Your task to perform on an android device: Search for vegetarian restaurants on Maps Image 0: 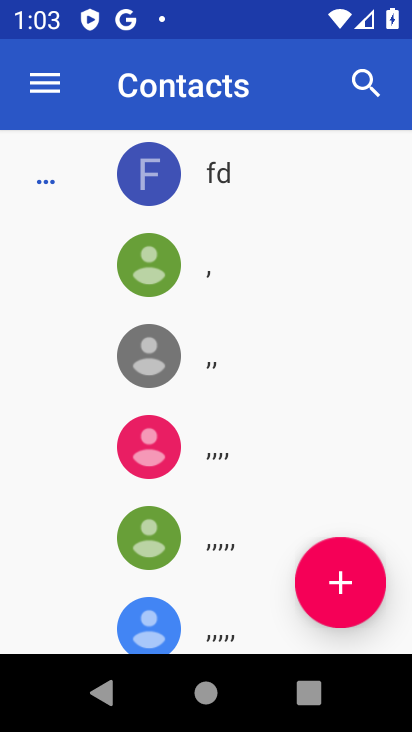
Step 0: press home button
Your task to perform on an android device: Search for vegetarian restaurants on Maps Image 1: 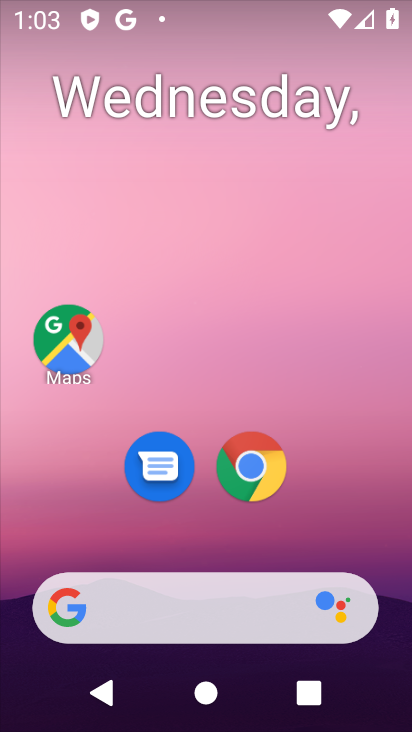
Step 1: click (81, 340)
Your task to perform on an android device: Search for vegetarian restaurants on Maps Image 2: 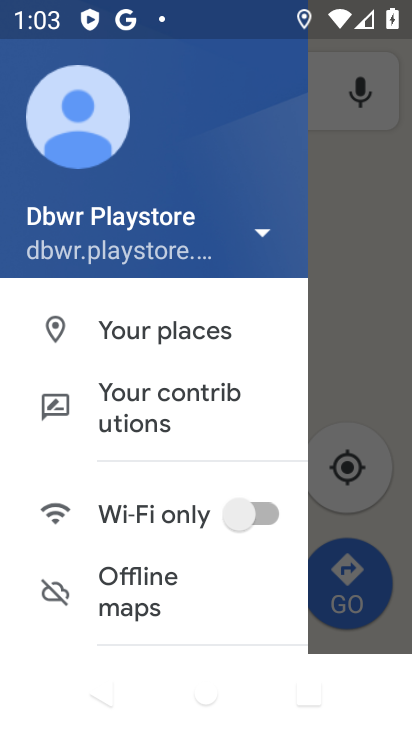
Step 2: click (317, 302)
Your task to perform on an android device: Search for vegetarian restaurants on Maps Image 3: 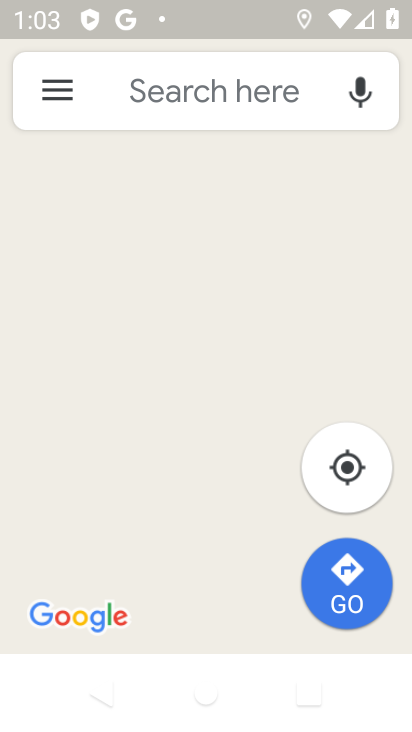
Step 3: click (180, 101)
Your task to perform on an android device: Search for vegetarian restaurants on Maps Image 4: 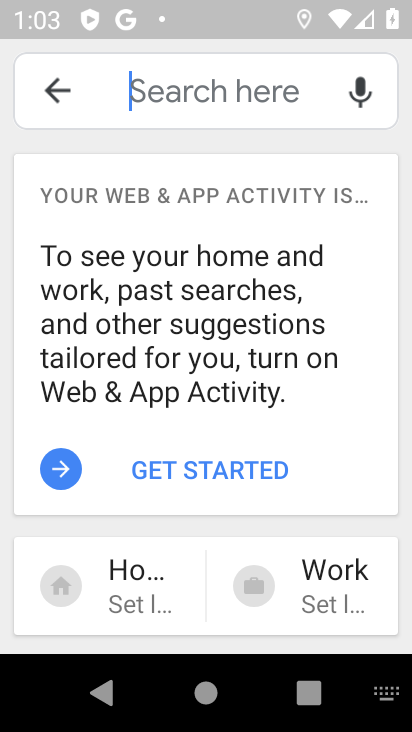
Step 4: click (182, 463)
Your task to perform on an android device: Search for vegetarian restaurants on Maps Image 5: 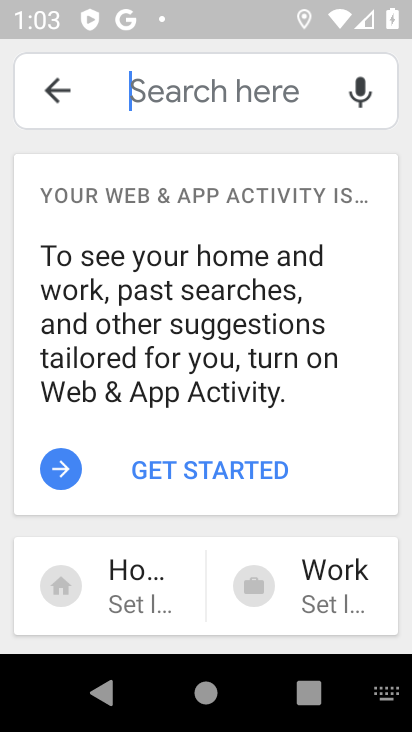
Step 5: click (185, 463)
Your task to perform on an android device: Search for vegetarian restaurants on Maps Image 6: 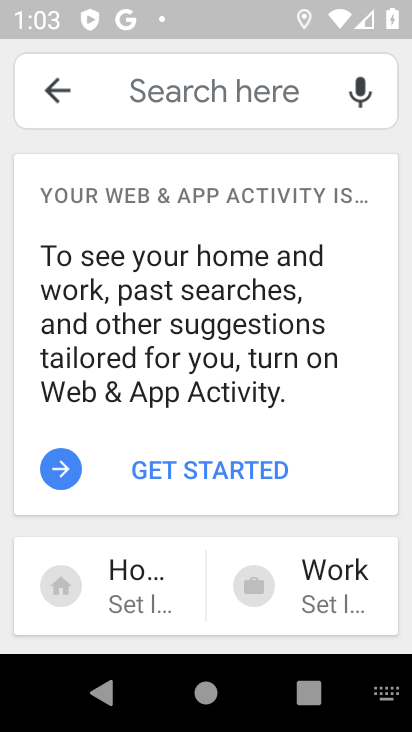
Step 6: click (185, 463)
Your task to perform on an android device: Search for vegetarian restaurants on Maps Image 7: 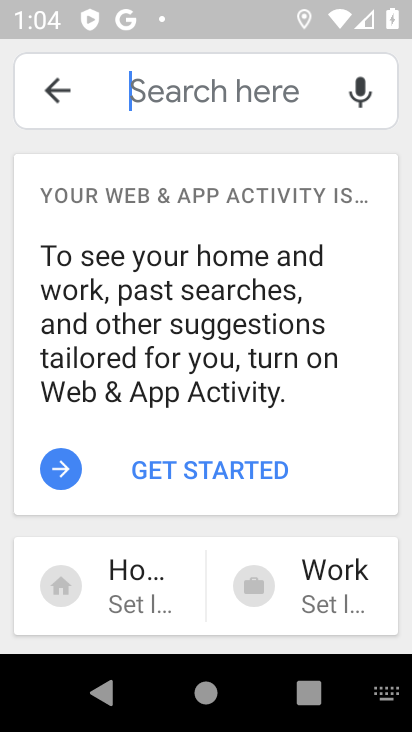
Step 7: type "vegetarian restaurants"
Your task to perform on an android device: Search for vegetarian restaurants on Maps Image 8: 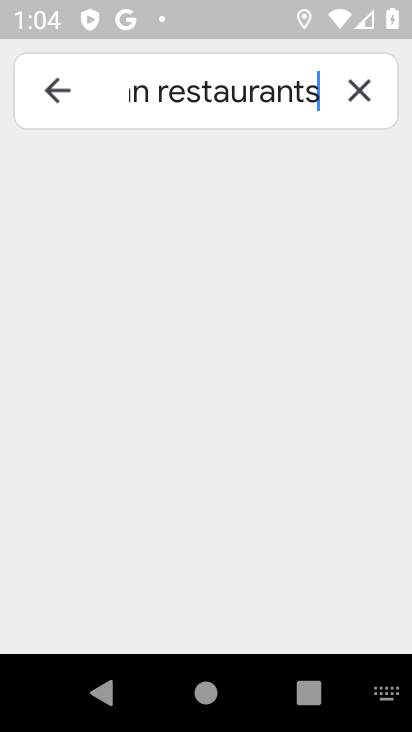
Step 8: click (310, 91)
Your task to perform on an android device: Search for vegetarian restaurants on Maps Image 9: 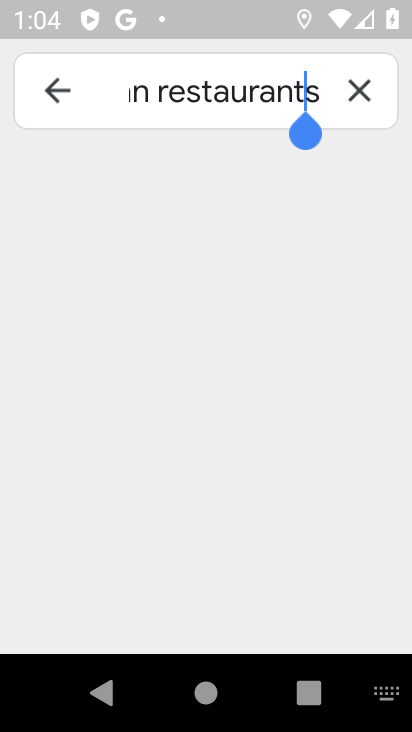
Step 9: drag from (286, 4) to (341, 465)
Your task to perform on an android device: Search for vegetarian restaurants on Maps Image 10: 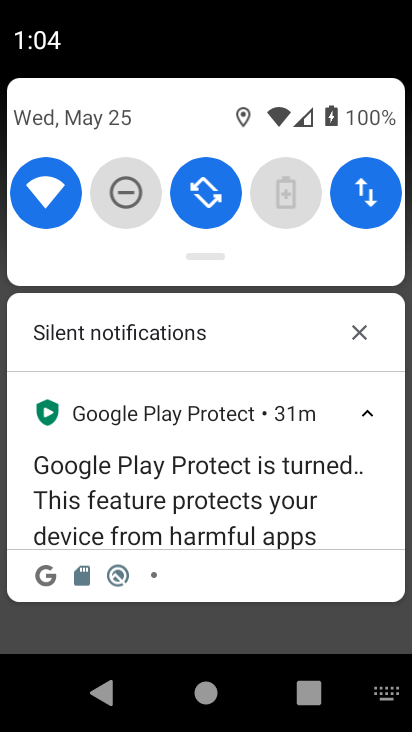
Step 10: drag from (207, 488) to (184, 339)
Your task to perform on an android device: Search for vegetarian restaurants on Maps Image 11: 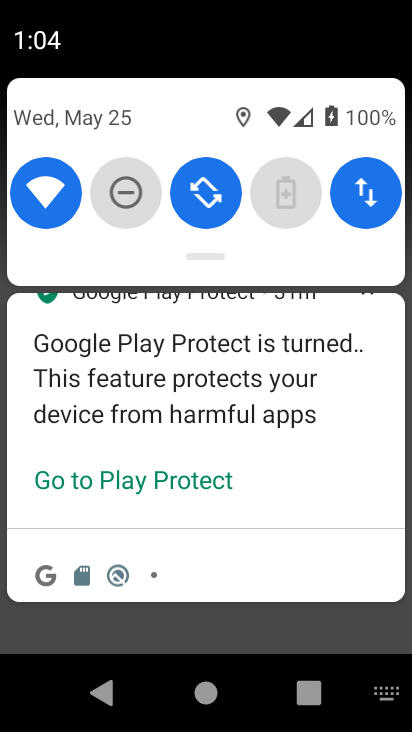
Step 11: click (132, 484)
Your task to perform on an android device: Search for vegetarian restaurants on Maps Image 12: 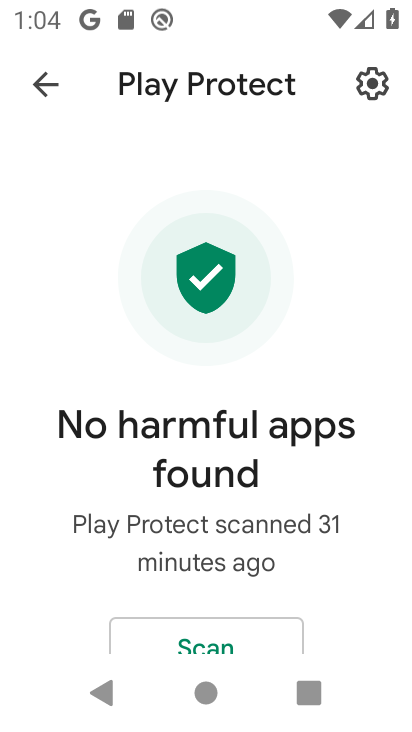
Step 12: task complete